Your task to perform on an android device: turn on location history Image 0: 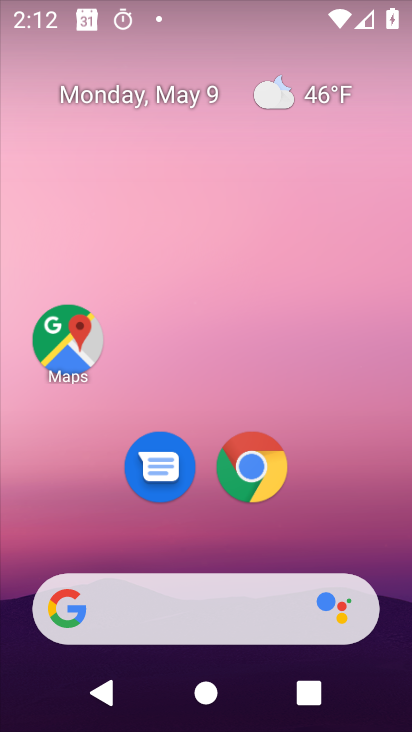
Step 0: drag from (347, 485) to (282, 15)
Your task to perform on an android device: turn on location history Image 1: 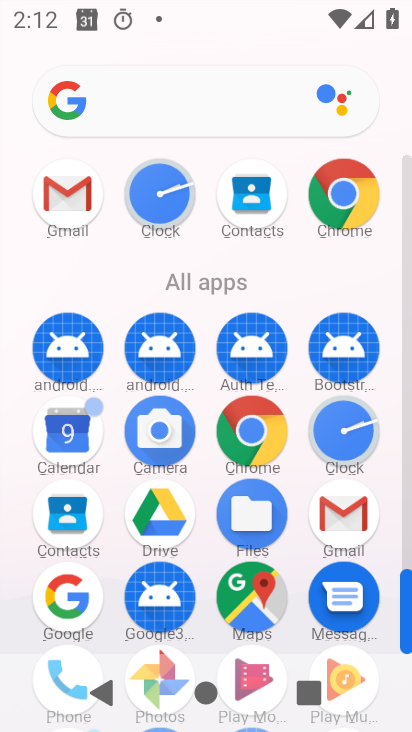
Step 1: drag from (233, 557) to (286, 159)
Your task to perform on an android device: turn on location history Image 2: 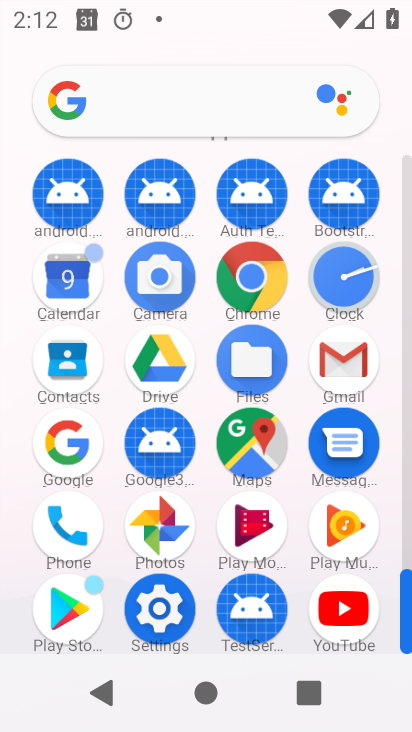
Step 2: click (152, 620)
Your task to perform on an android device: turn on location history Image 3: 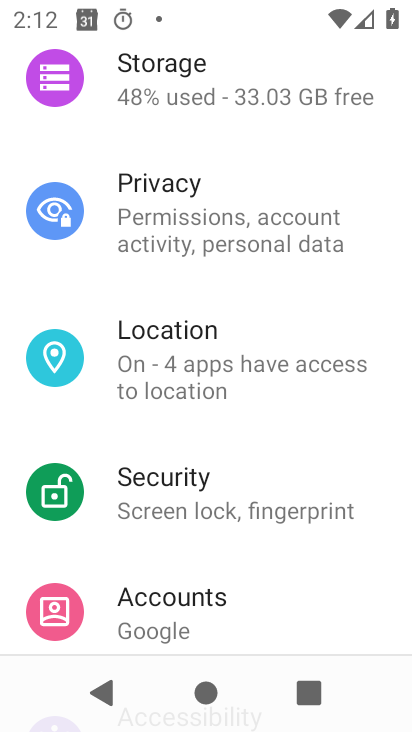
Step 3: drag from (271, 574) to (227, 503)
Your task to perform on an android device: turn on location history Image 4: 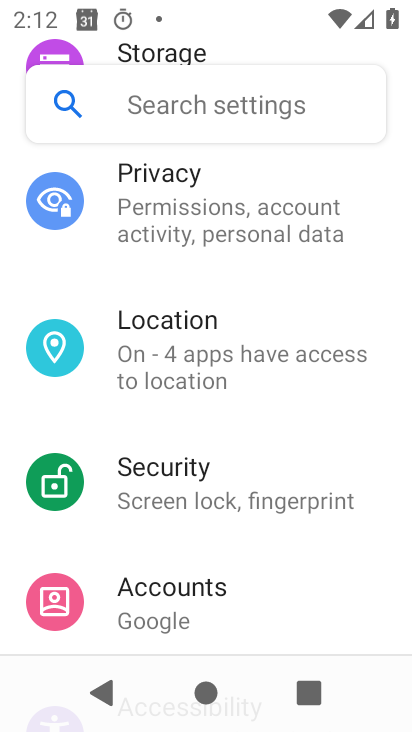
Step 4: click (191, 340)
Your task to perform on an android device: turn on location history Image 5: 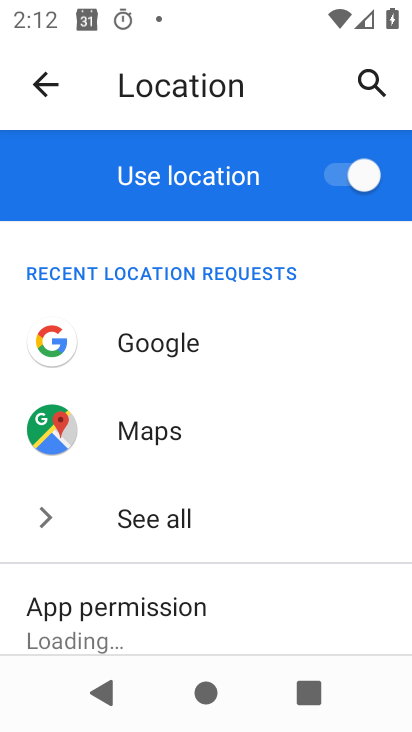
Step 5: drag from (250, 525) to (299, 132)
Your task to perform on an android device: turn on location history Image 6: 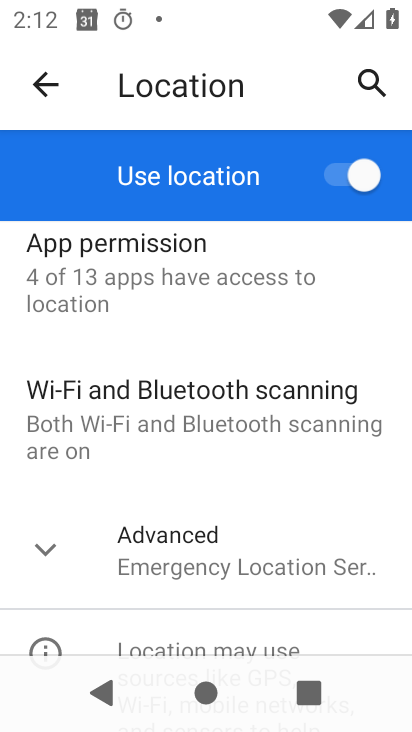
Step 6: click (175, 538)
Your task to perform on an android device: turn on location history Image 7: 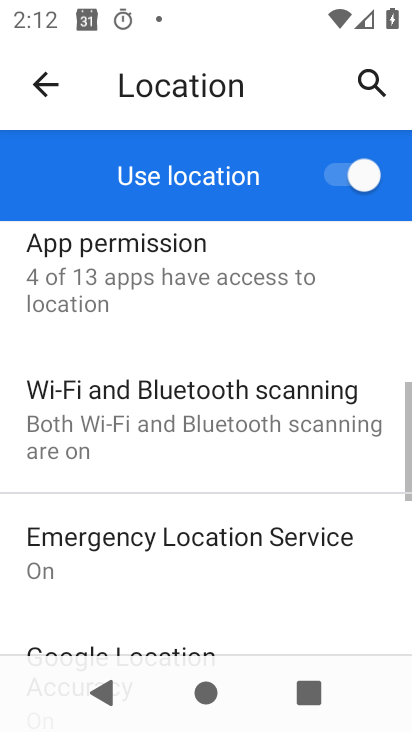
Step 7: drag from (316, 586) to (378, 37)
Your task to perform on an android device: turn on location history Image 8: 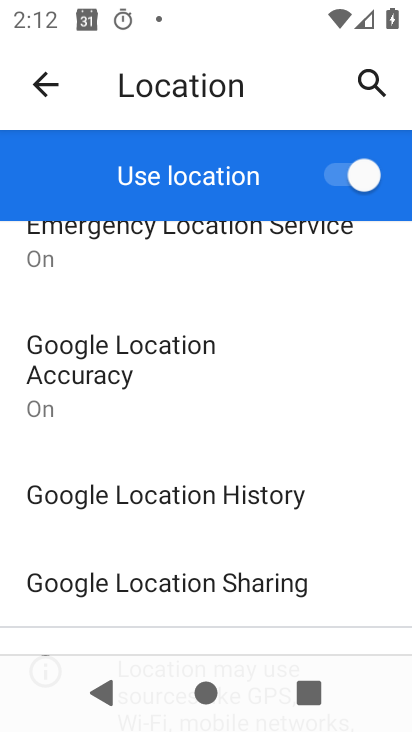
Step 8: click (206, 489)
Your task to perform on an android device: turn on location history Image 9: 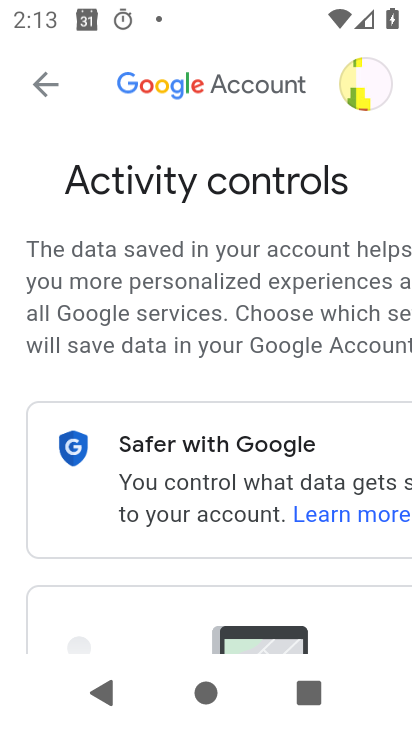
Step 9: drag from (197, 578) to (286, 100)
Your task to perform on an android device: turn on location history Image 10: 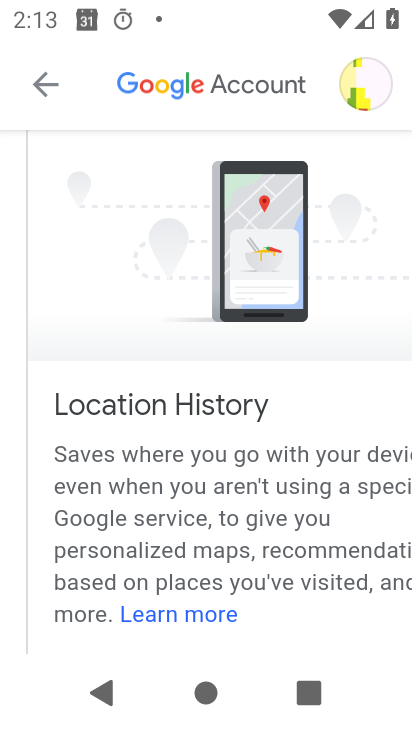
Step 10: drag from (231, 554) to (334, 66)
Your task to perform on an android device: turn on location history Image 11: 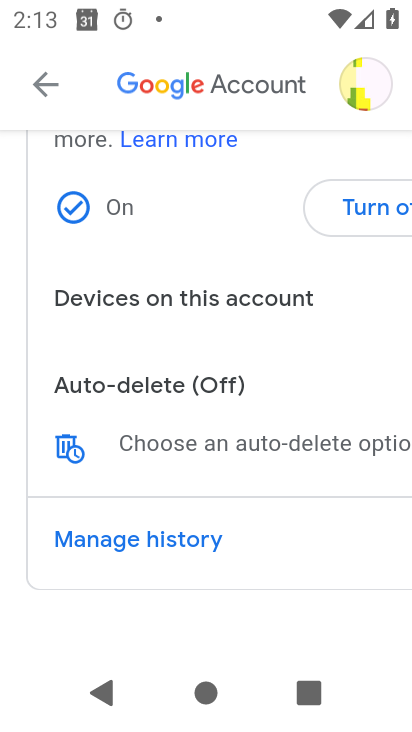
Step 11: click (360, 208)
Your task to perform on an android device: turn on location history Image 12: 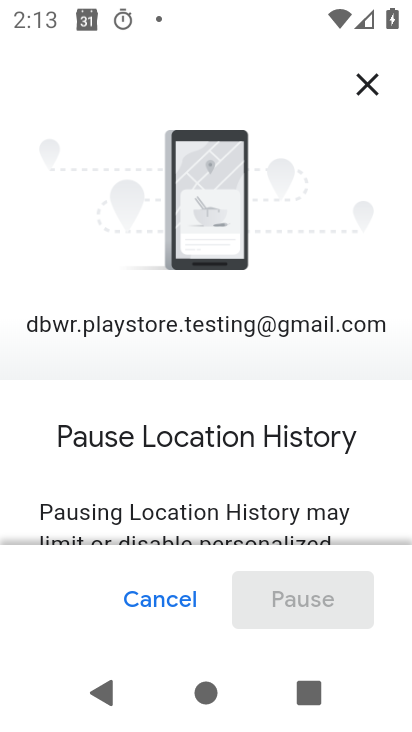
Step 12: drag from (220, 486) to (290, 2)
Your task to perform on an android device: turn on location history Image 13: 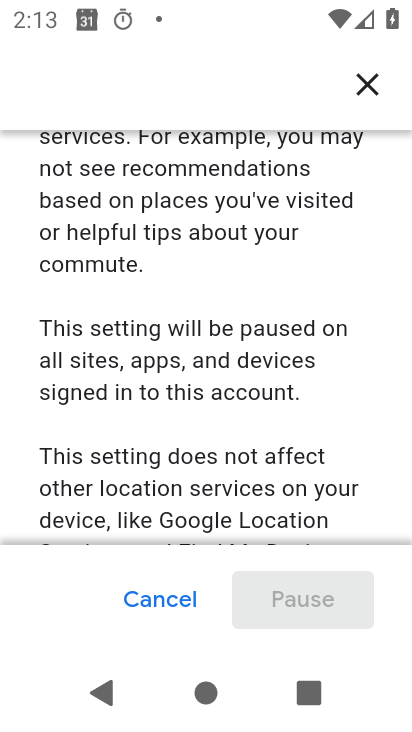
Step 13: drag from (263, 418) to (327, 0)
Your task to perform on an android device: turn on location history Image 14: 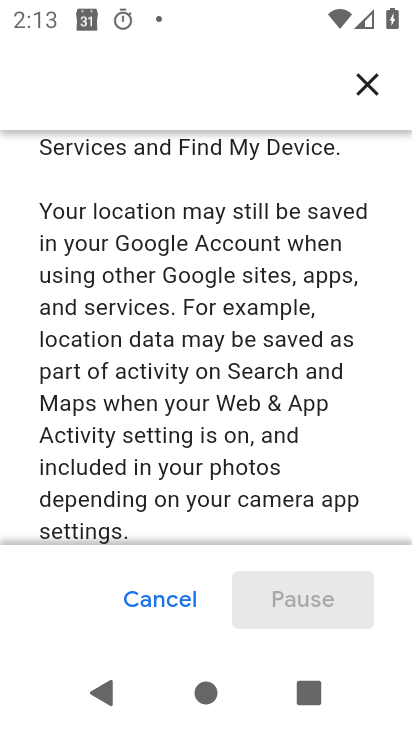
Step 14: drag from (279, 480) to (374, 74)
Your task to perform on an android device: turn on location history Image 15: 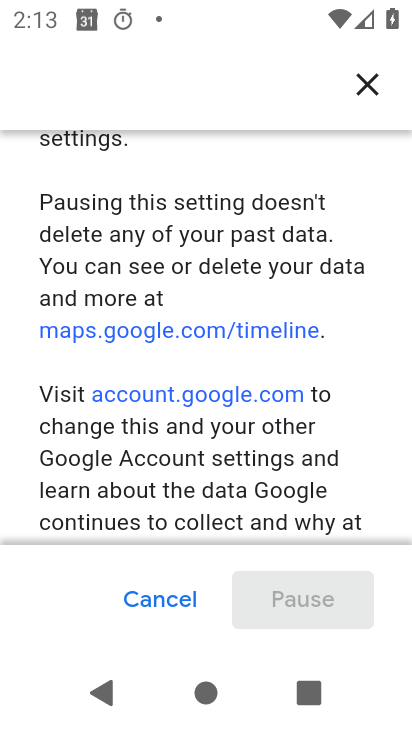
Step 15: drag from (264, 411) to (347, 77)
Your task to perform on an android device: turn on location history Image 16: 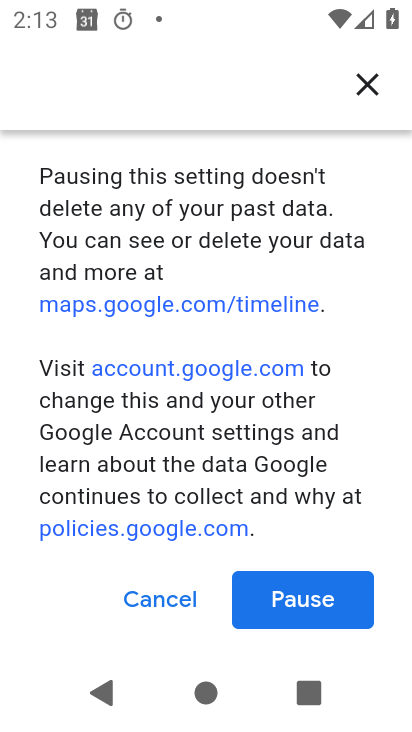
Step 16: click (368, 76)
Your task to perform on an android device: turn on location history Image 17: 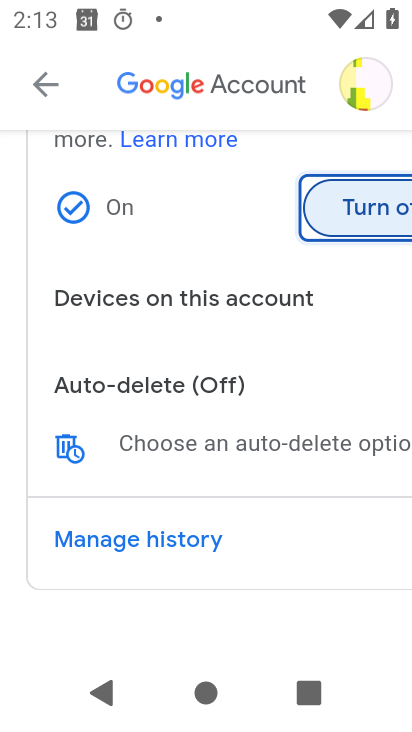
Step 17: task complete